Your task to perform on an android device: Add "dell alienware" to the cart on bestbuy, then select checkout. Image 0: 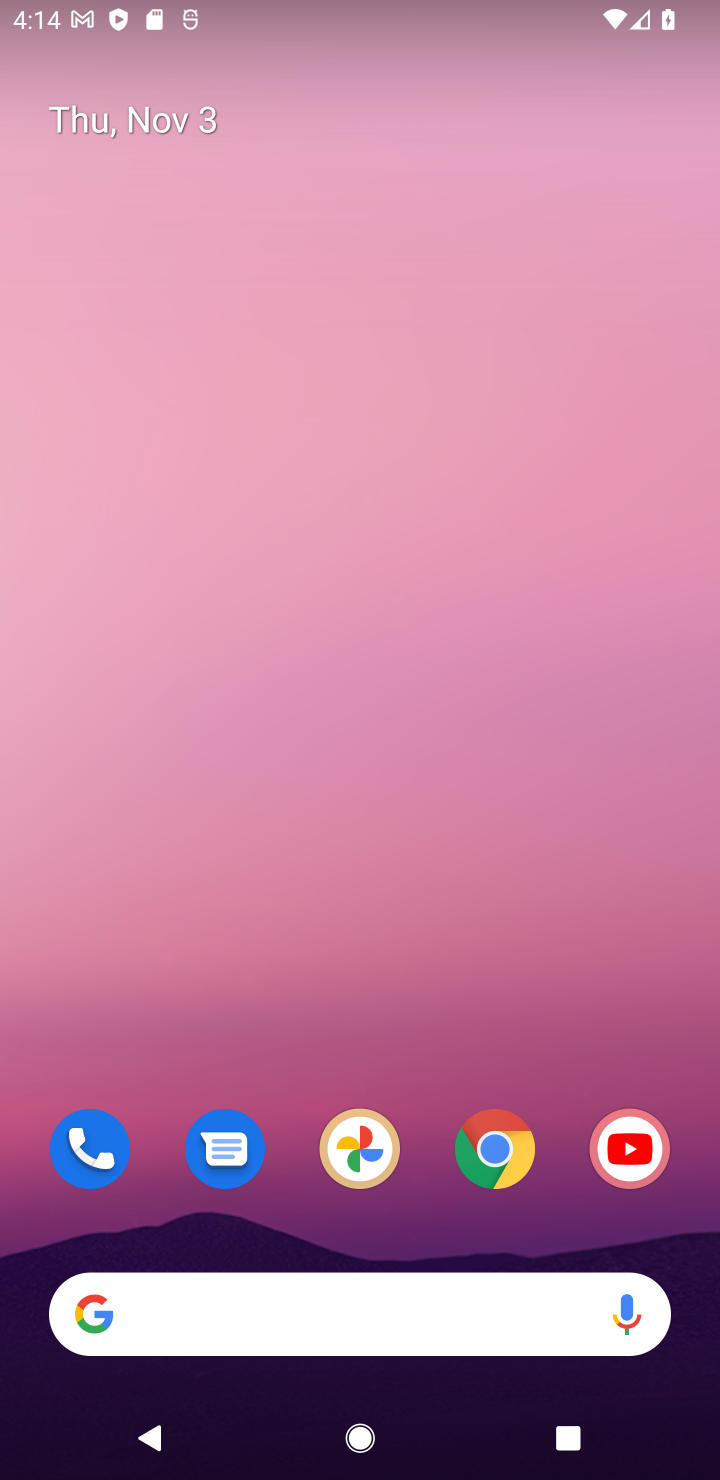
Step 0: drag from (404, 1065) to (350, 340)
Your task to perform on an android device: Add "dell alienware" to the cart on bestbuy, then select checkout. Image 1: 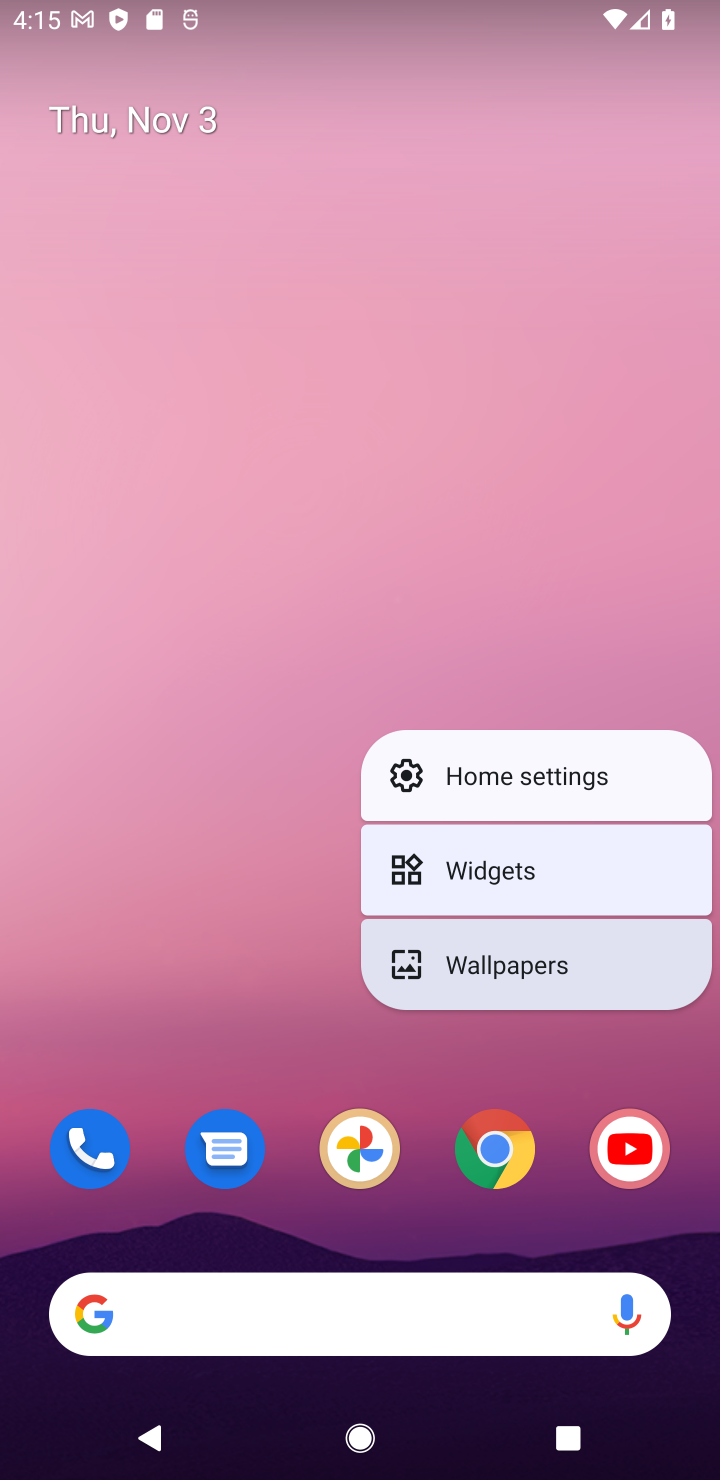
Step 1: click (221, 700)
Your task to perform on an android device: Add "dell alienware" to the cart on bestbuy, then select checkout. Image 2: 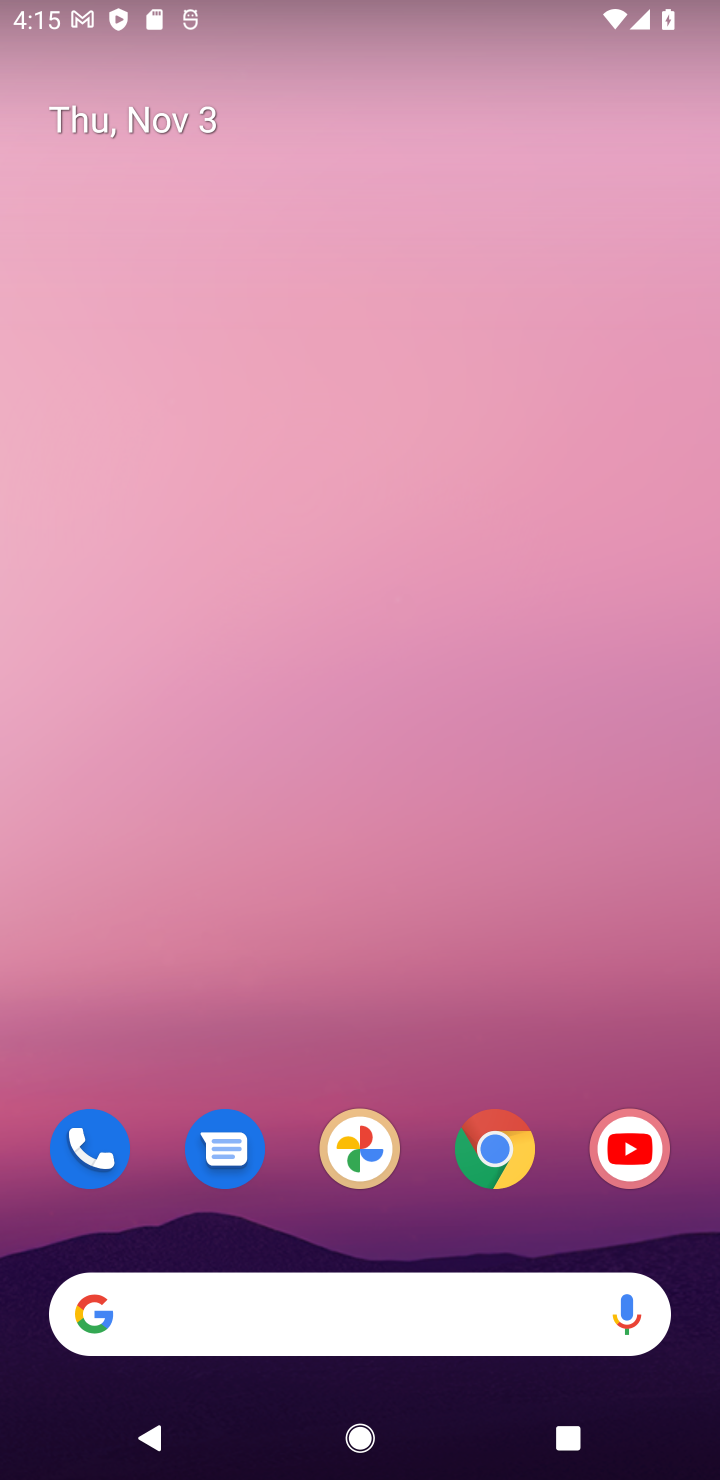
Step 2: drag from (414, 1093) to (363, 73)
Your task to perform on an android device: Add "dell alienware" to the cart on bestbuy, then select checkout. Image 3: 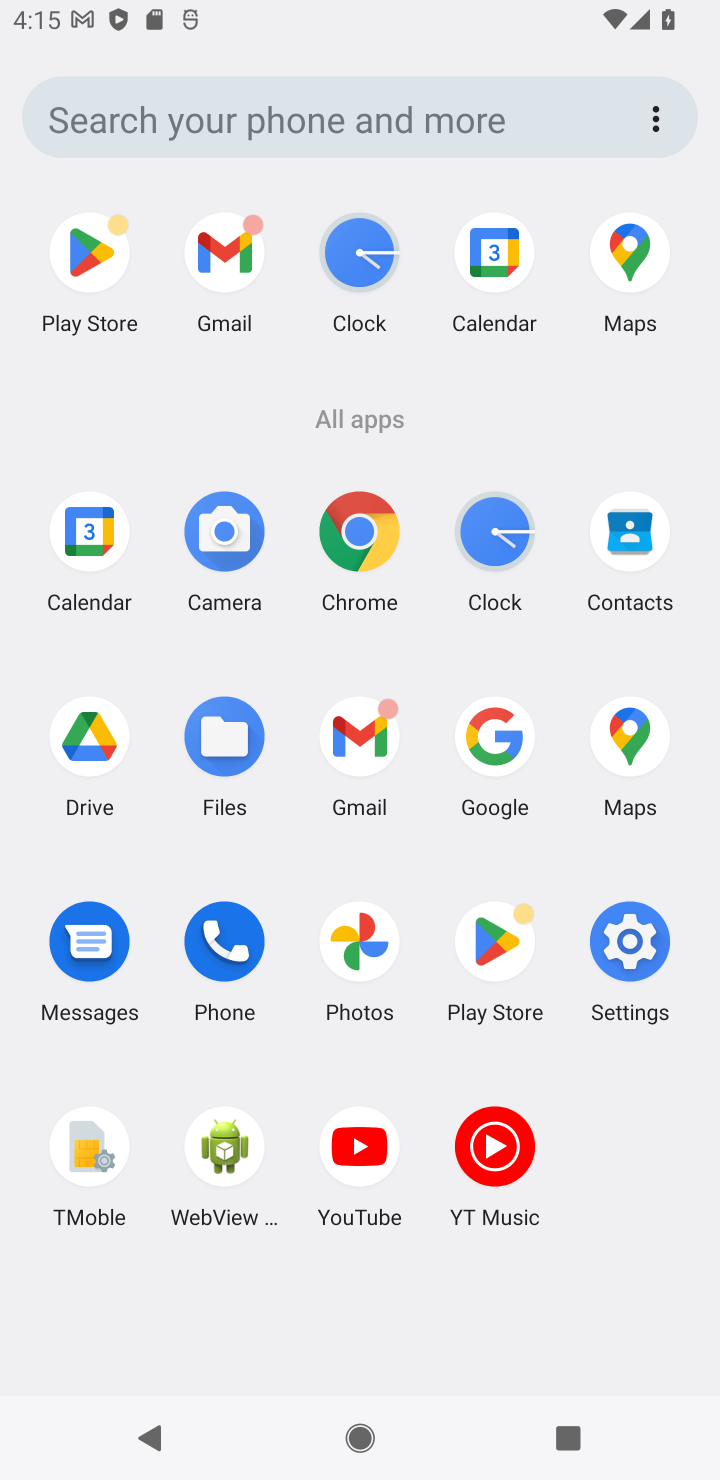
Step 3: click (347, 530)
Your task to perform on an android device: Add "dell alienware" to the cart on bestbuy, then select checkout. Image 4: 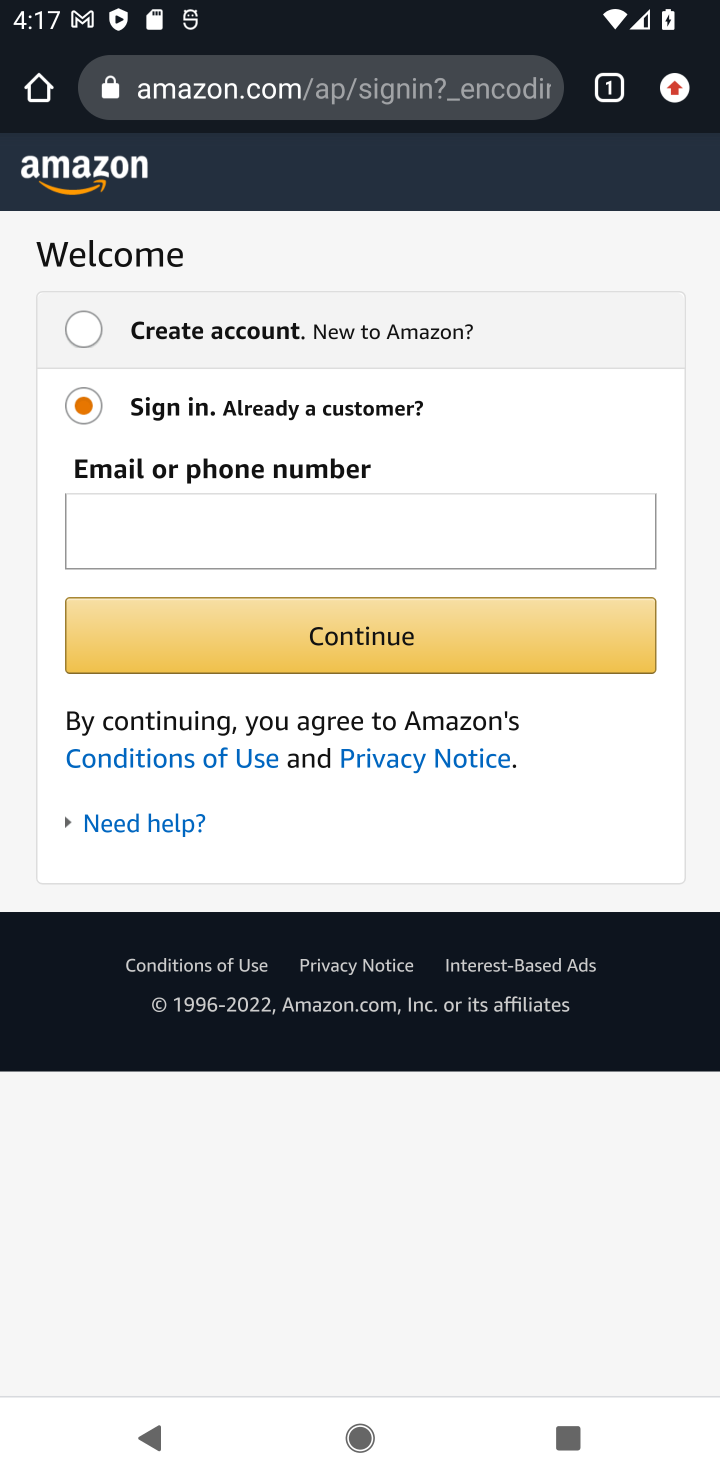
Step 4: click (234, 82)
Your task to perform on an android device: Add "dell alienware" to the cart on bestbuy, then select checkout. Image 5: 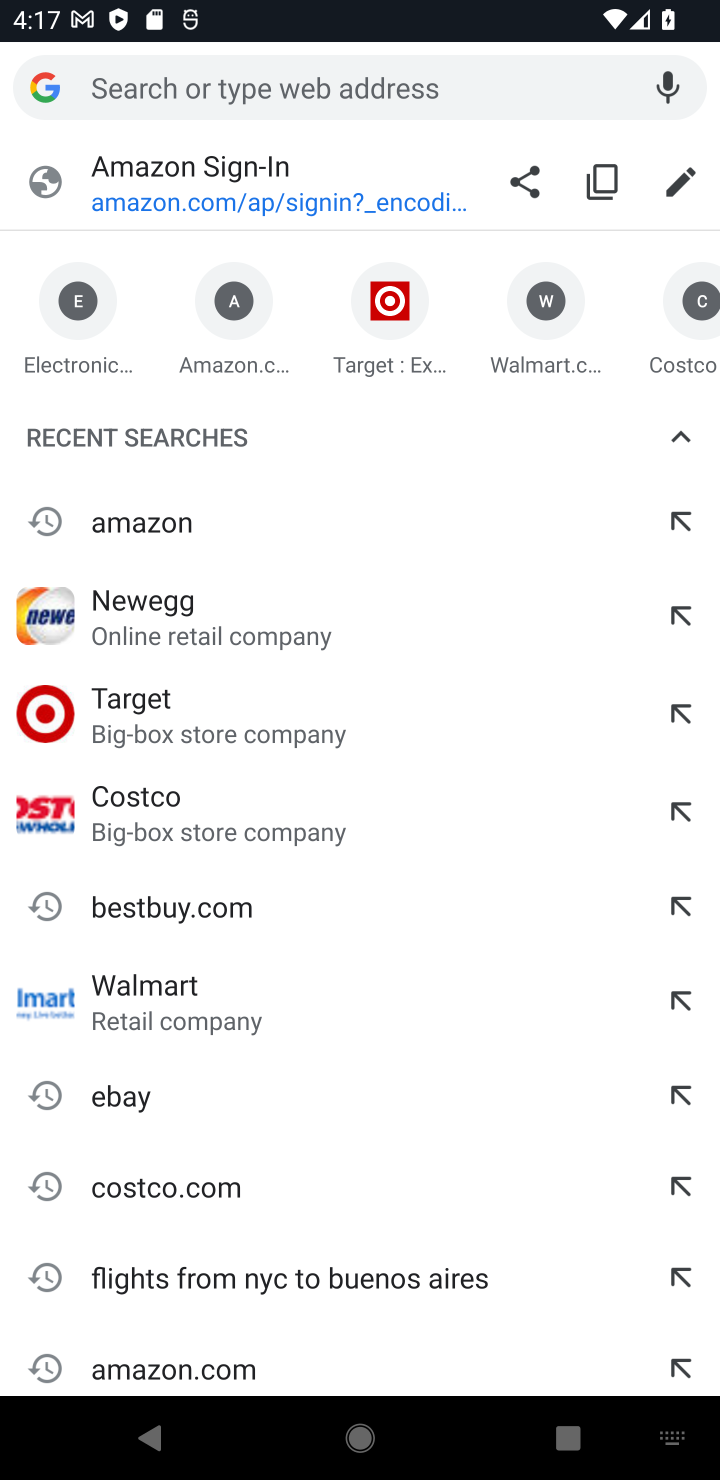
Step 5: click (186, 922)
Your task to perform on an android device: Add "dell alienware" to the cart on bestbuy, then select checkout. Image 6: 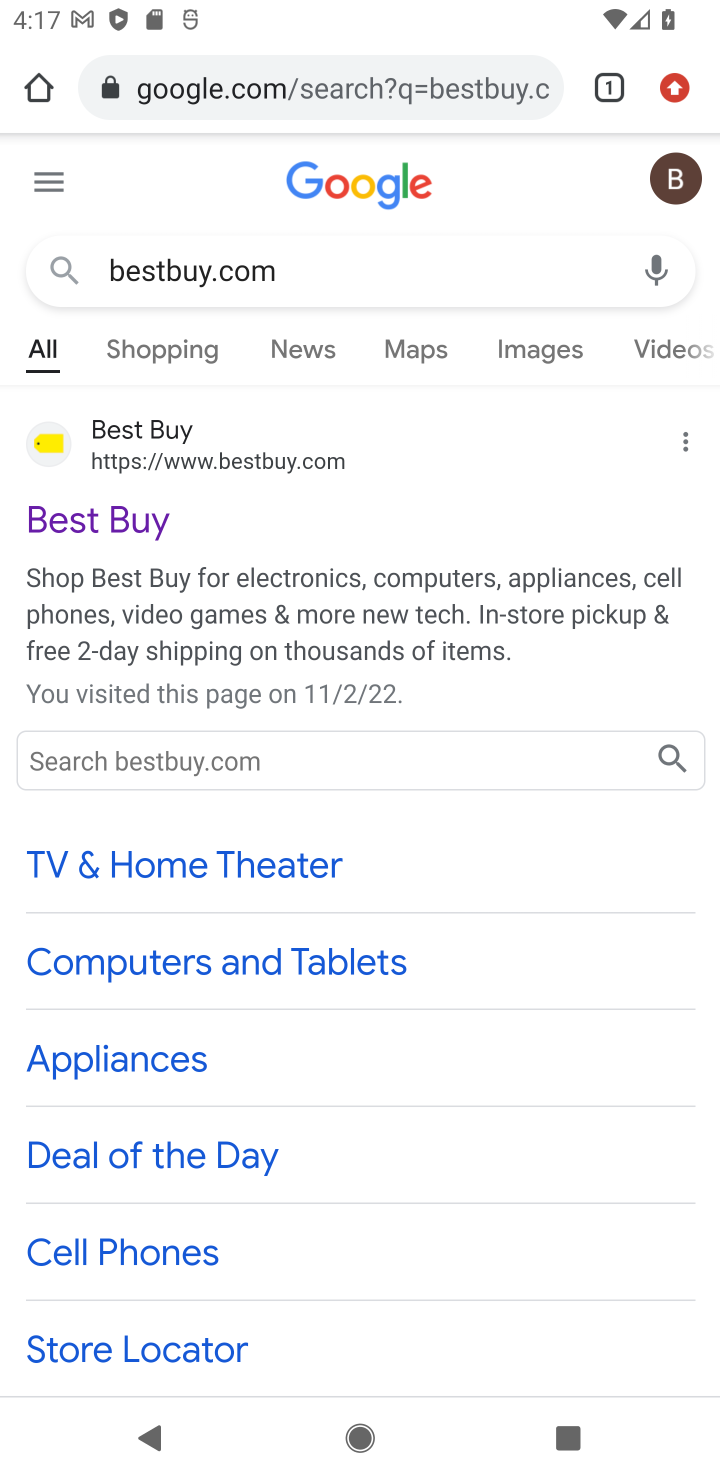
Step 6: click (89, 518)
Your task to perform on an android device: Add "dell alienware" to the cart on bestbuy, then select checkout. Image 7: 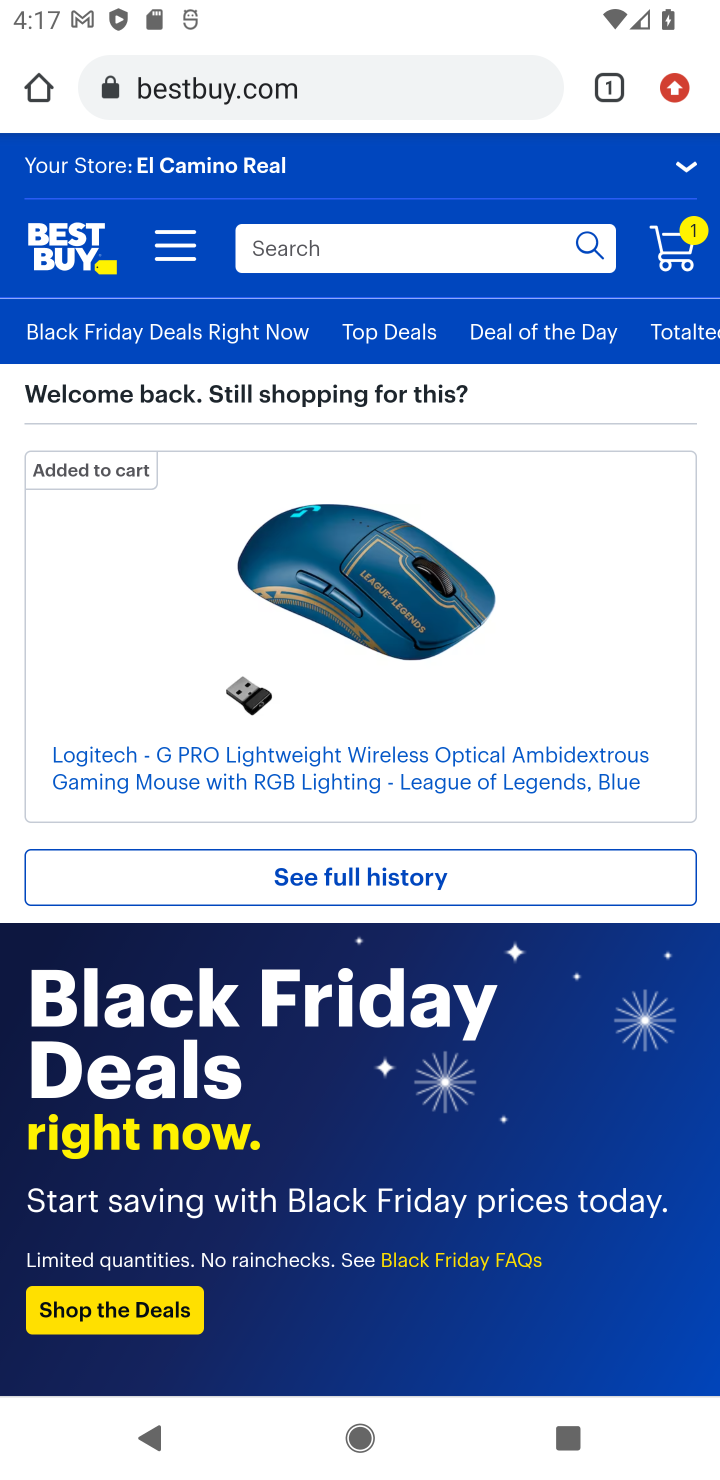
Step 7: click (318, 247)
Your task to perform on an android device: Add "dell alienware" to the cart on bestbuy, then select checkout. Image 8: 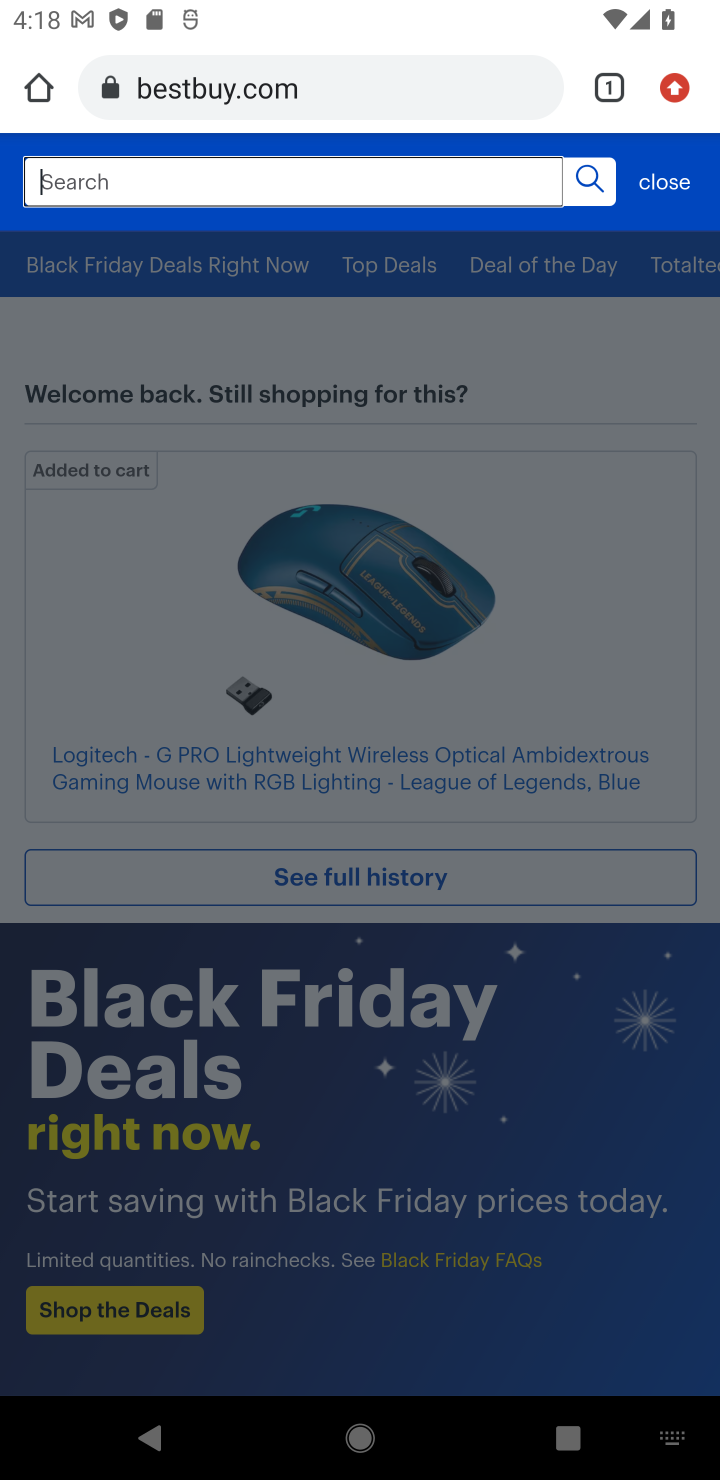
Step 8: type "dell alienware"
Your task to perform on an android device: Add "dell alienware" to the cart on bestbuy, then select checkout. Image 9: 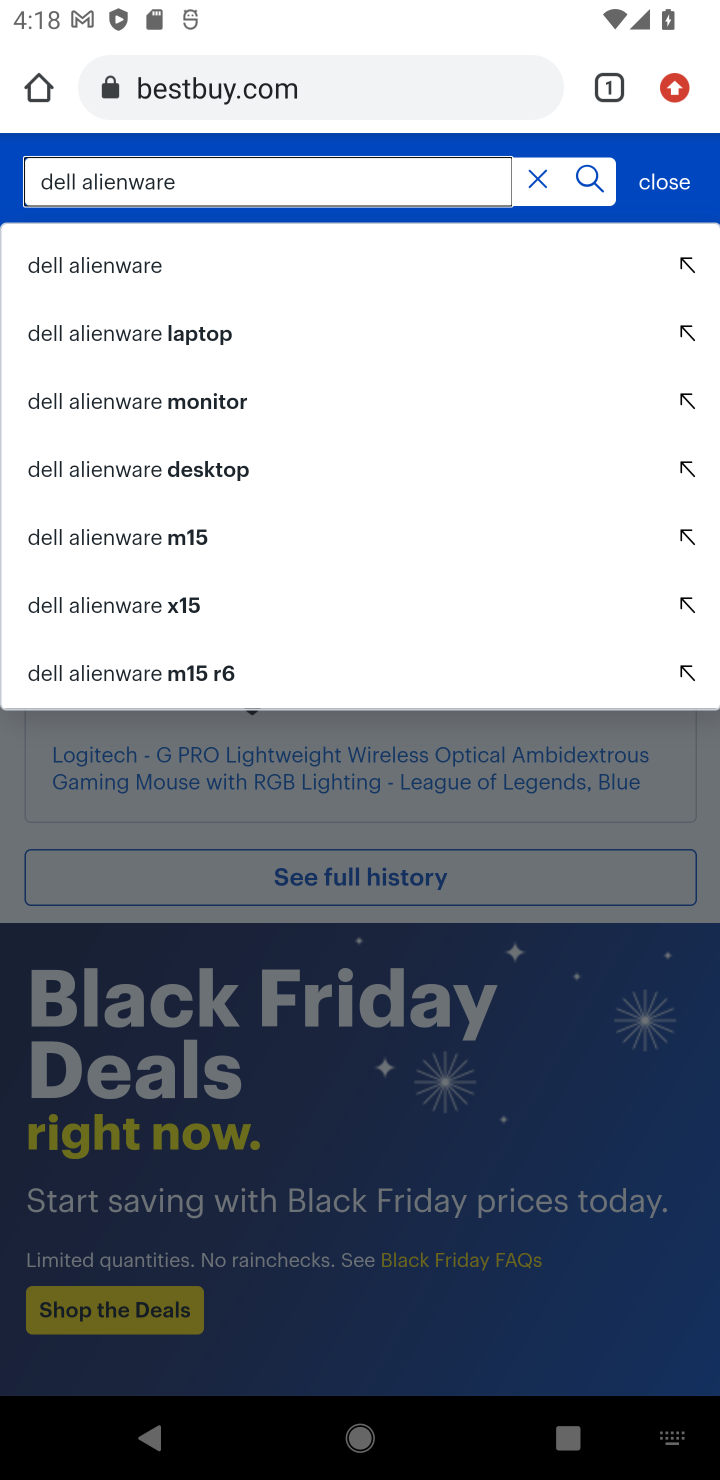
Step 9: click (168, 260)
Your task to perform on an android device: Add "dell alienware" to the cart on bestbuy, then select checkout. Image 10: 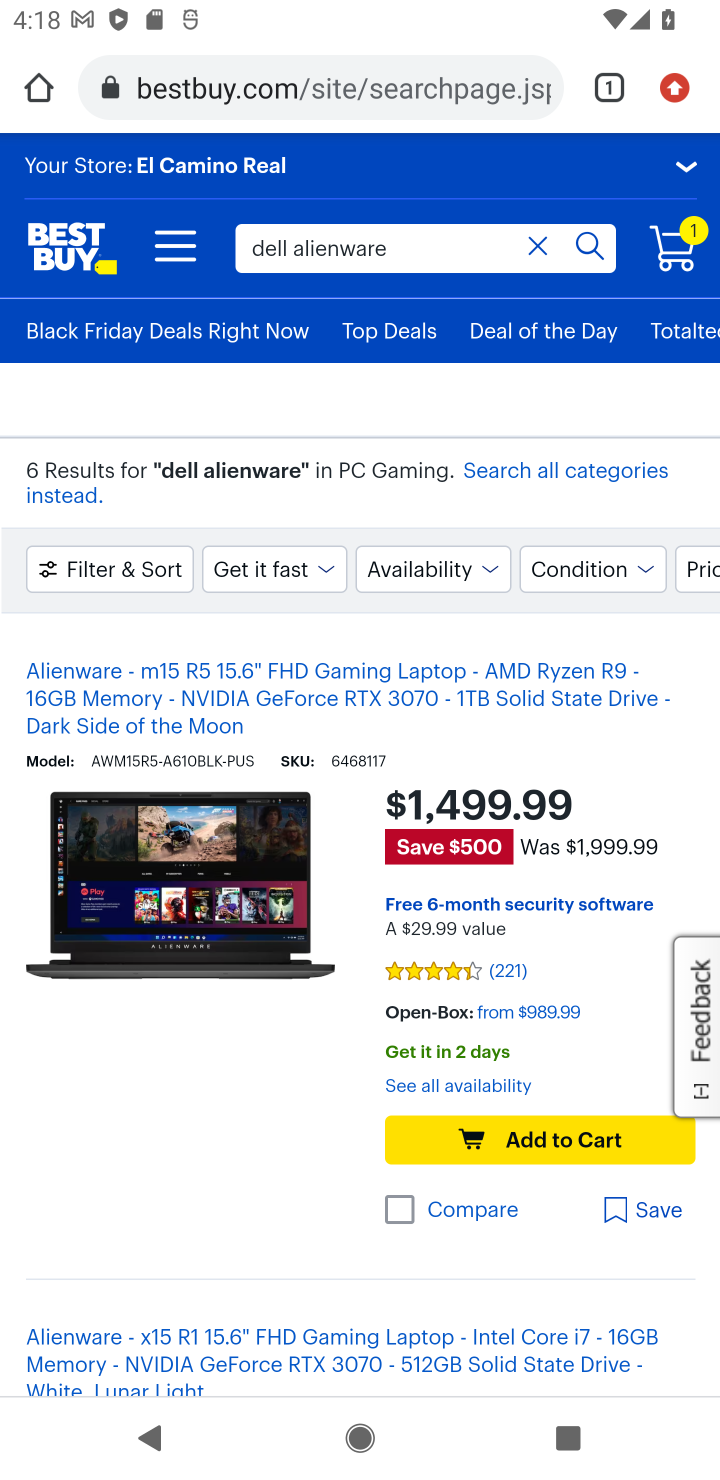
Step 10: click (200, 677)
Your task to perform on an android device: Add "dell alienware" to the cart on bestbuy, then select checkout. Image 11: 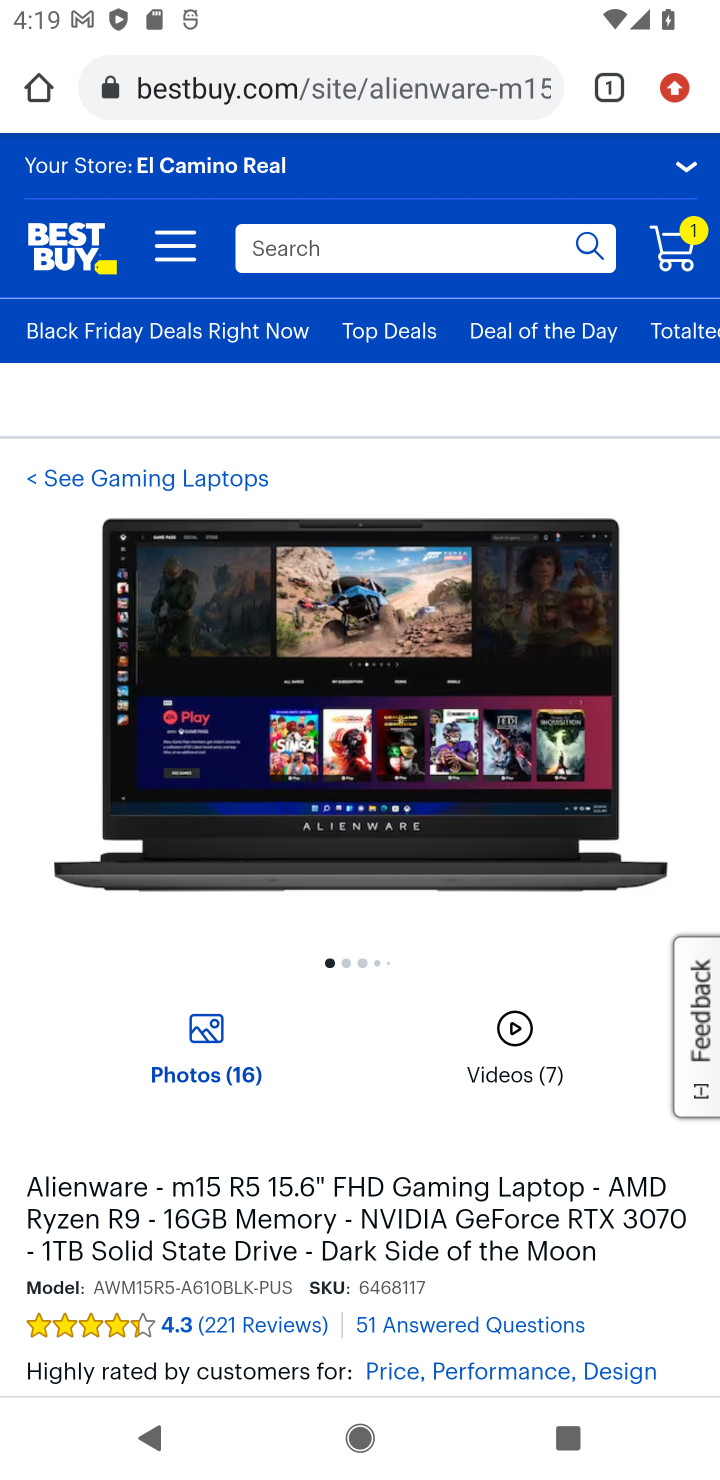
Step 11: drag from (406, 1234) to (309, 417)
Your task to perform on an android device: Add "dell alienware" to the cart on bestbuy, then select checkout. Image 12: 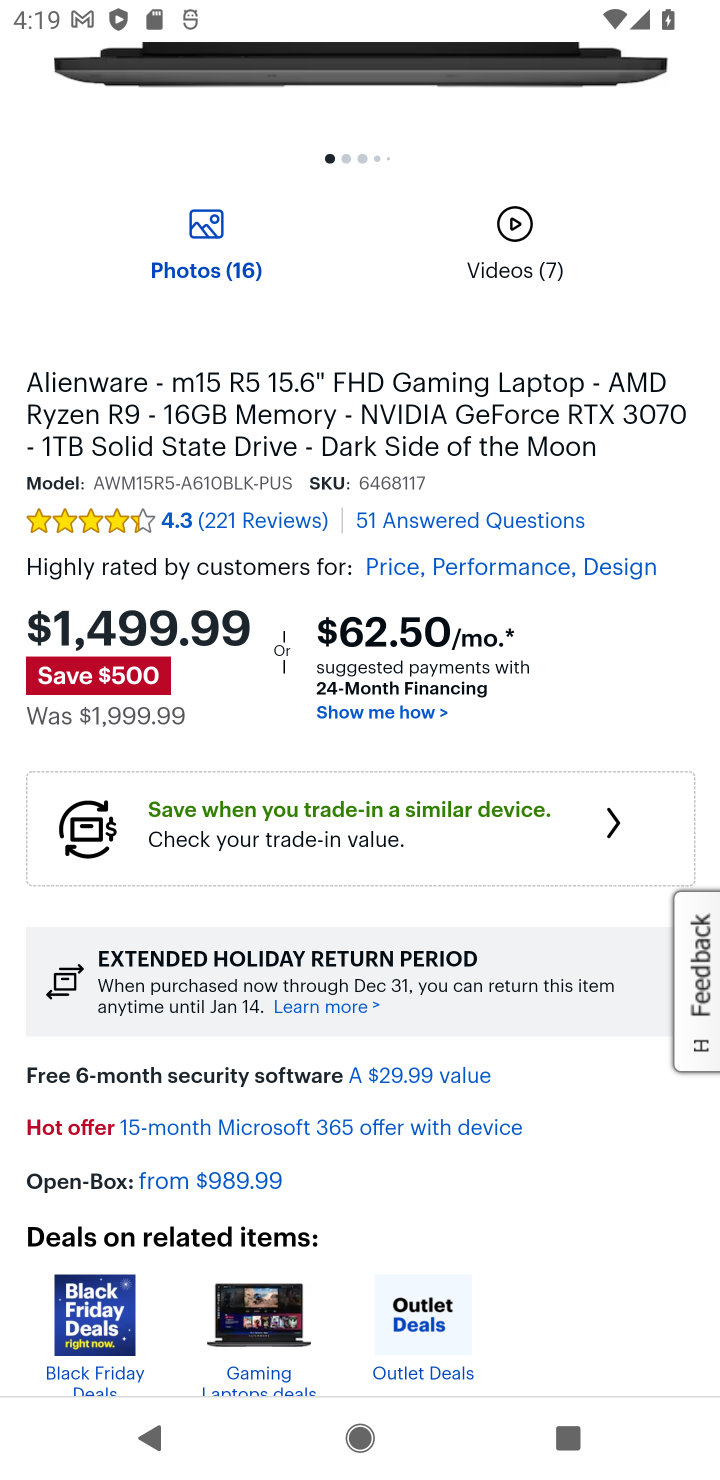
Step 12: drag from (411, 1154) to (334, 172)
Your task to perform on an android device: Add "dell alienware" to the cart on bestbuy, then select checkout. Image 13: 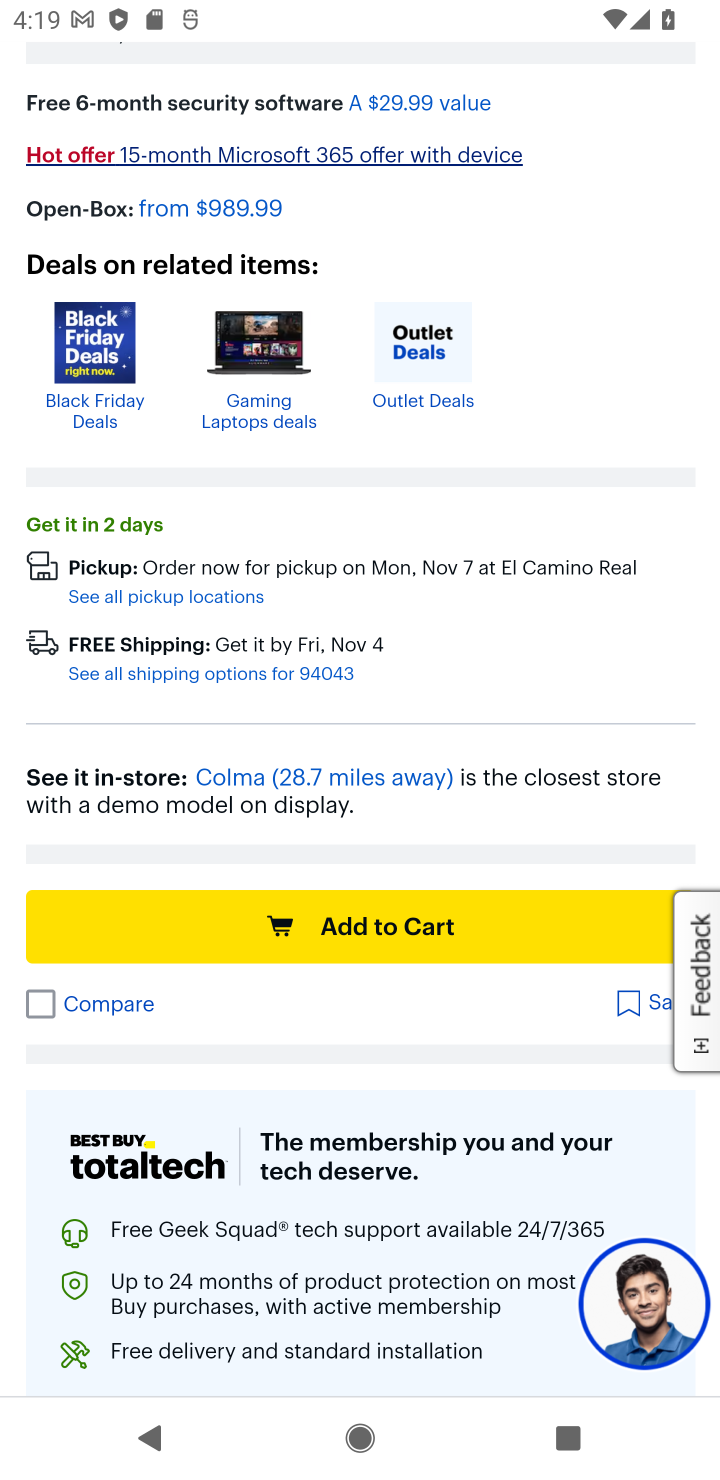
Step 13: click (376, 928)
Your task to perform on an android device: Add "dell alienware" to the cart on bestbuy, then select checkout. Image 14: 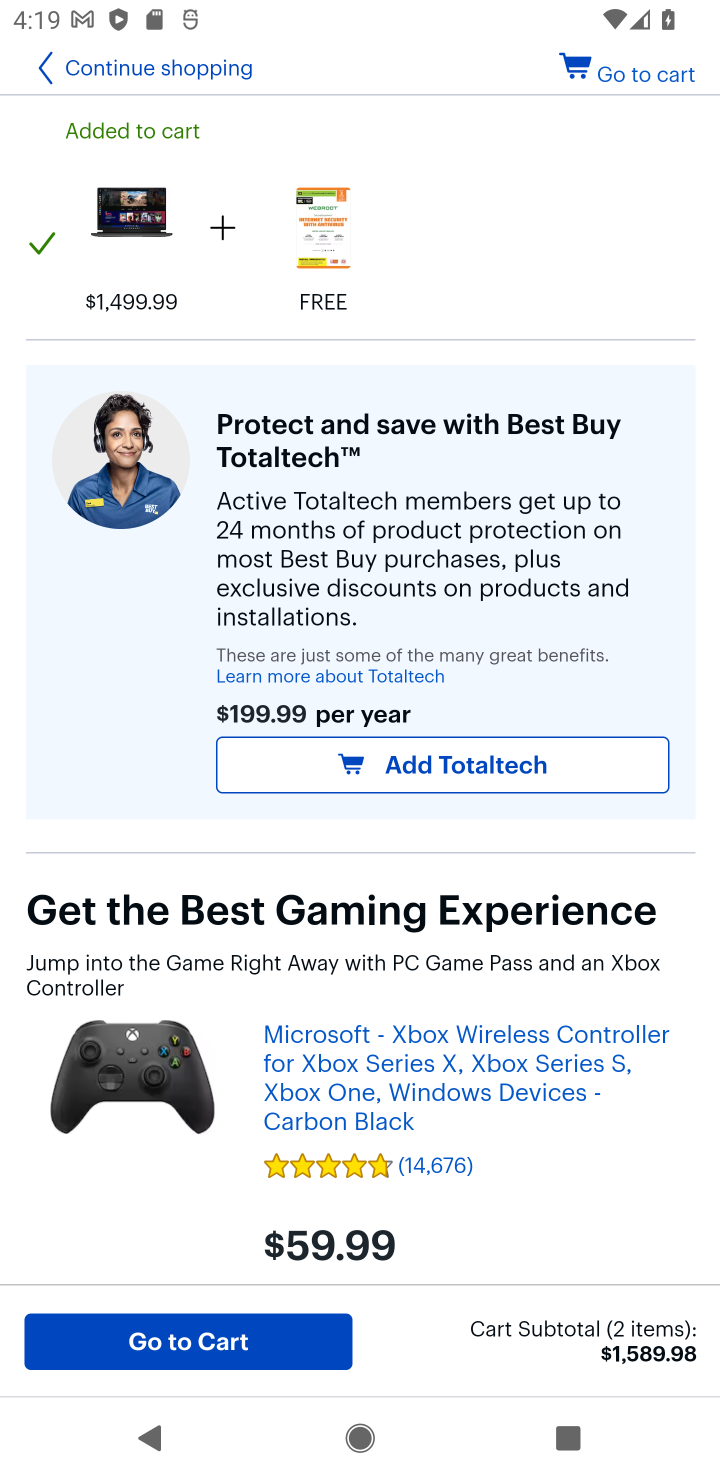
Step 14: click (204, 1340)
Your task to perform on an android device: Add "dell alienware" to the cart on bestbuy, then select checkout. Image 15: 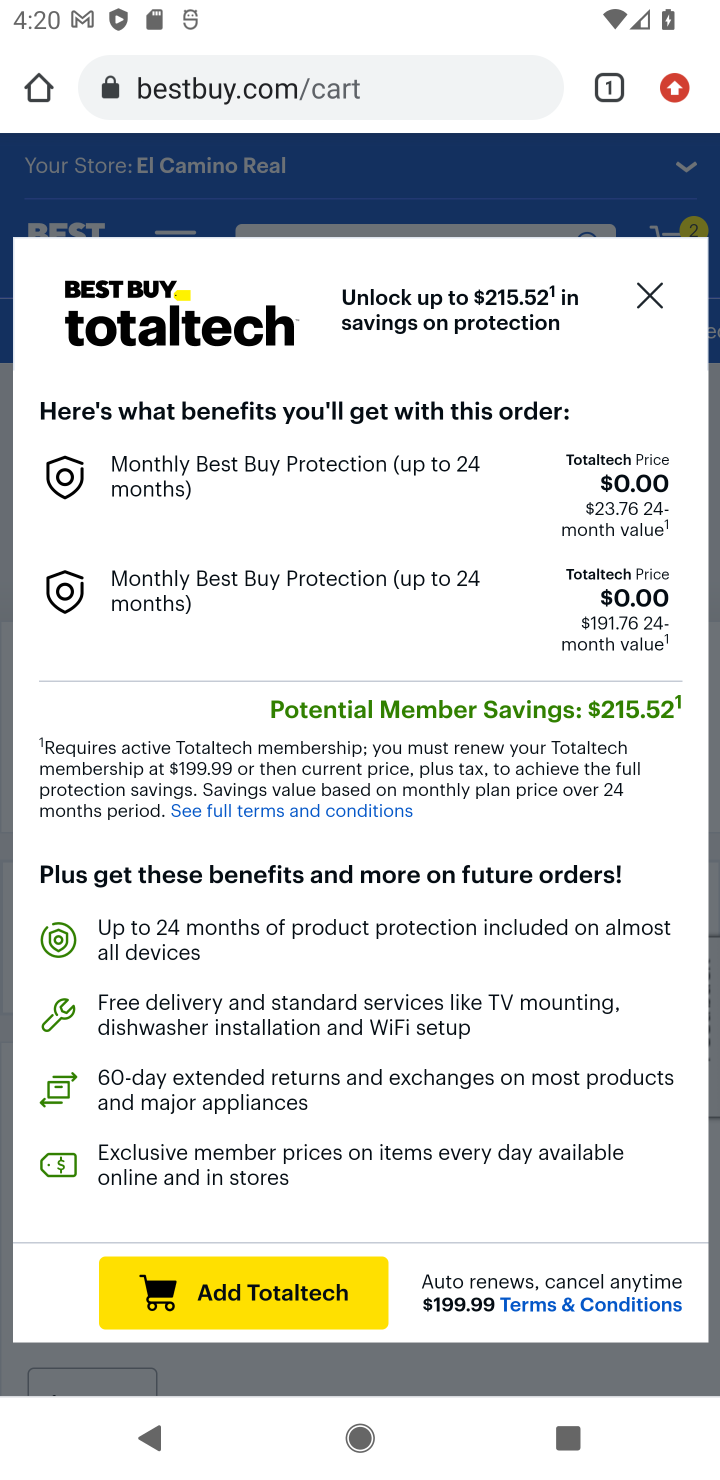
Step 15: click (253, 1272)
Your task to perform on an android device: Add "dell alienware" to the cart on bestbuy, then select checkout. Image 16: 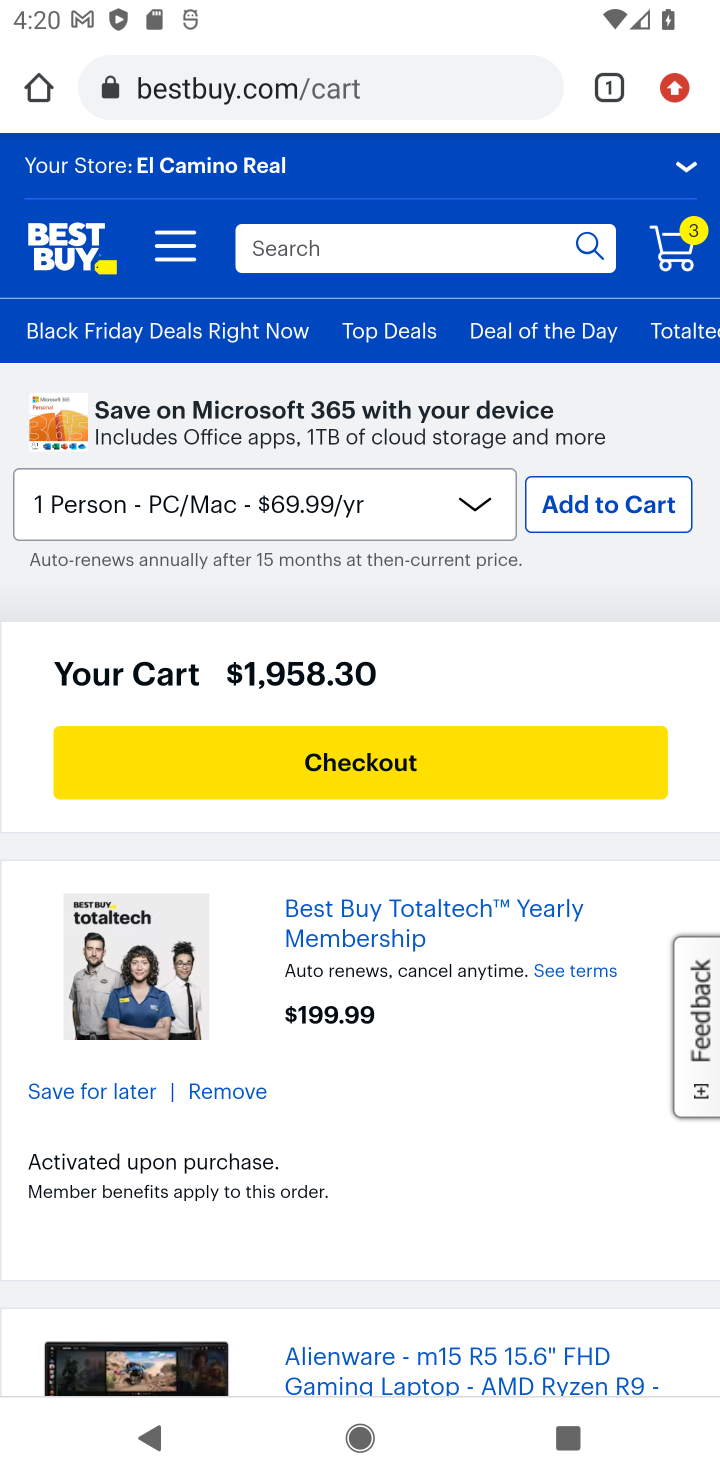
Step 16: click (677, 258)
Your task to perform on an android device: Add "dell alienware" to the cart on bestbuy, then select checkout. Image 17: 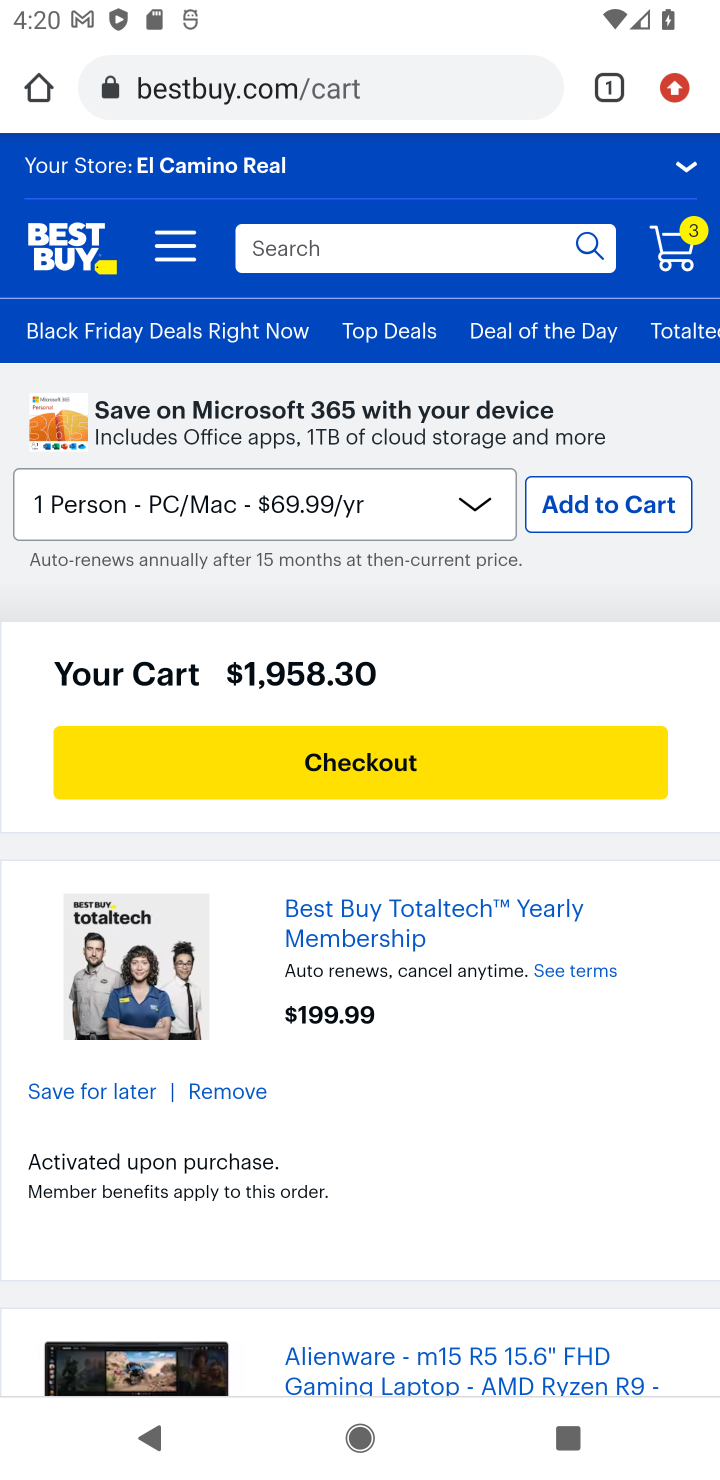
Step 17: click (679, 245)
Your task to perform on an android device: Add "dell alienware" to the cart on bestbuy, then select checkout. Image 18: 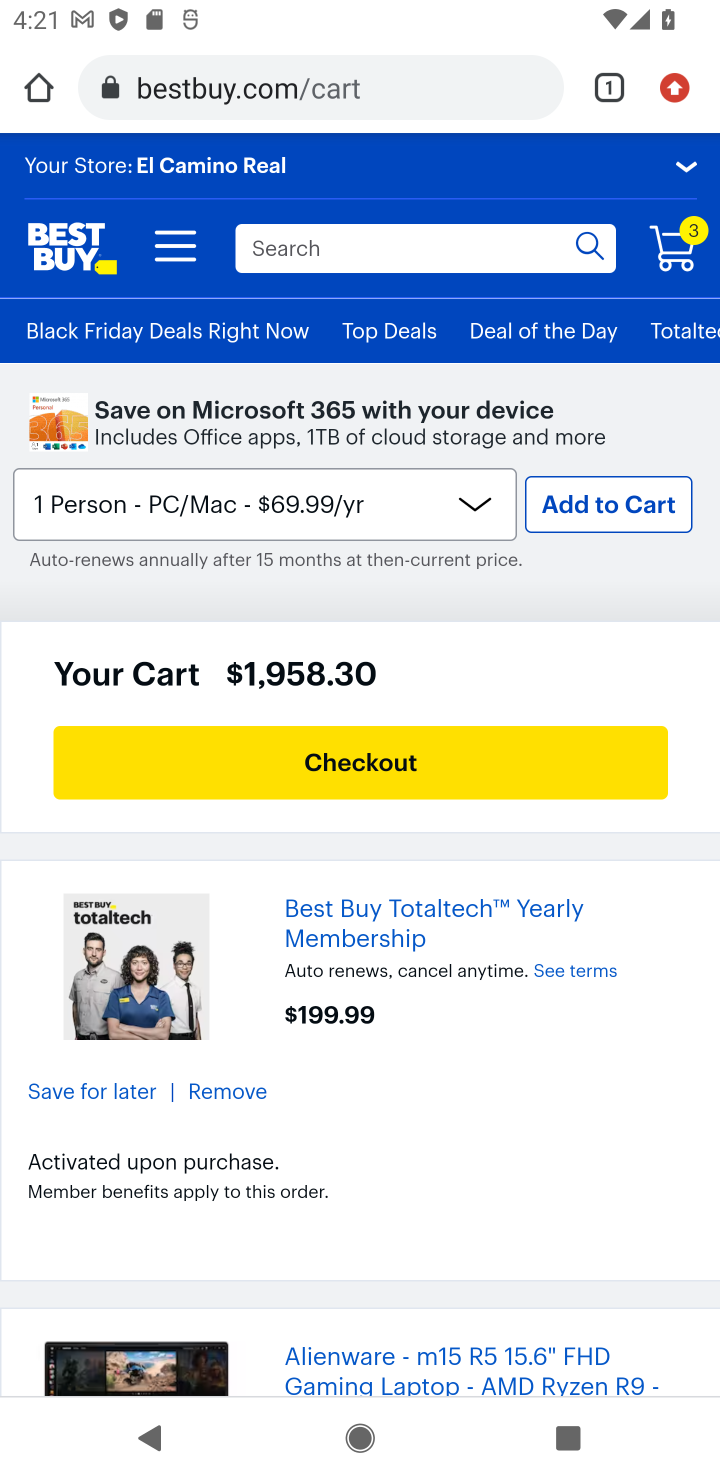
Step 18: click (335, 779)
Your task to perform on an android device: Add "dell alienware" to the cart on bestbuy, then select checkout. Image 19: 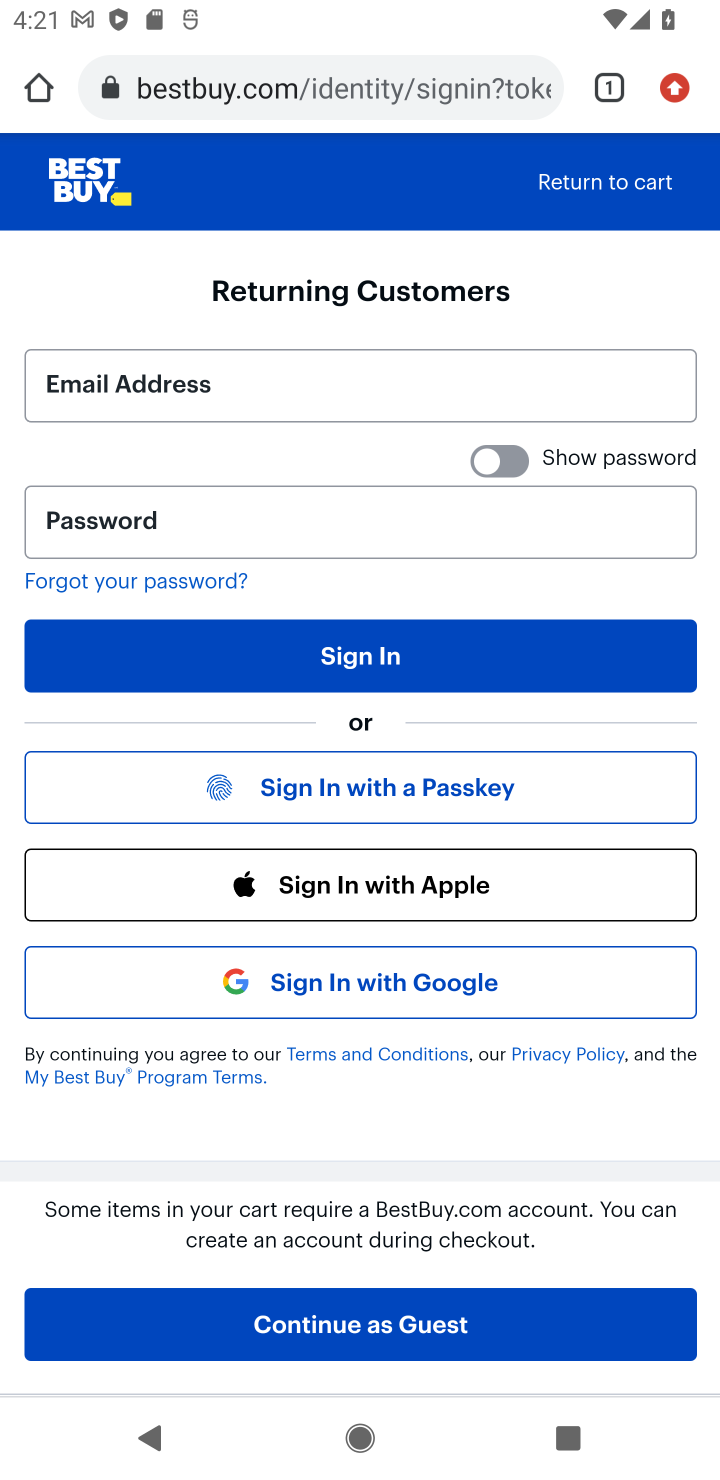
Step 19: task complete